Your task to perform on an android device: Open Android settings Image 0: 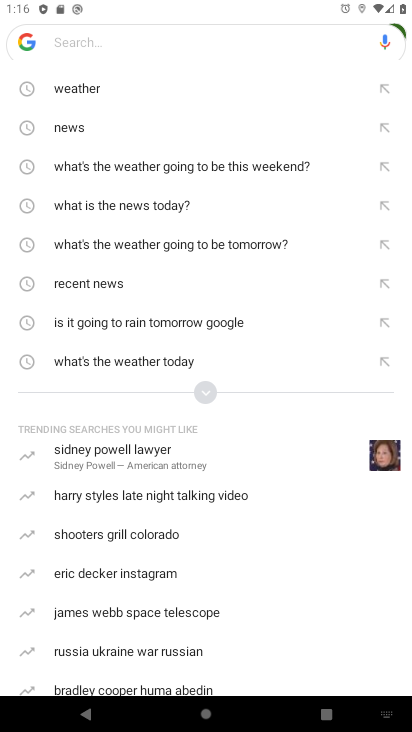
Step 0: press home button
Your task to perform on an android device: Open Android settings Image 1: 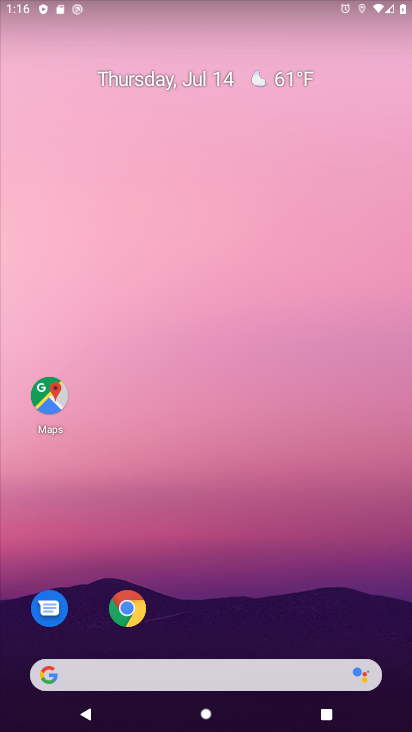
Step 1: click (190, 425)
Your task to perform on an android device: Open Android settings Image 2: 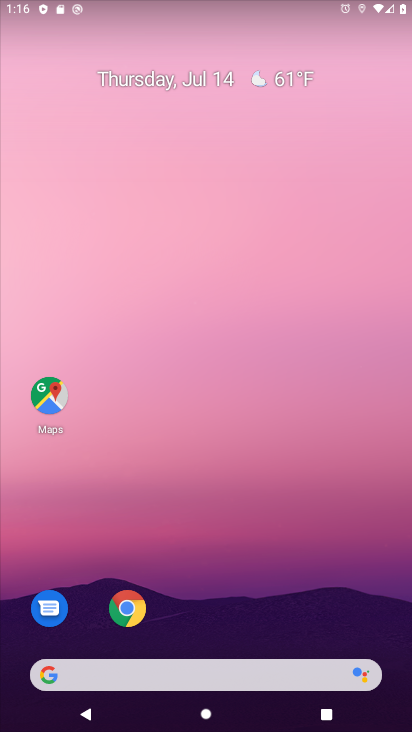
Step 2: drag from (209, 163) to (203, 121)
Your task to perform on an android device: Open Android settings Image 3: 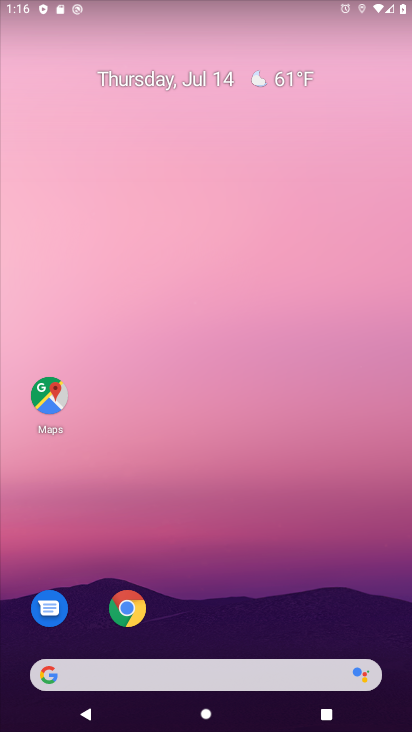
Step 3: drag from (247, 631) to (246, 74)
Your task to perform on an android device: Open Android settings Image 4: 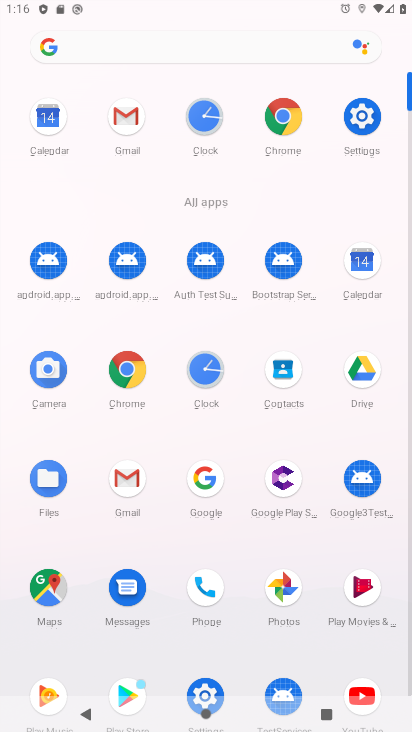
Step 4: click (357, 113)
Your task to perform on an android device: Open Android settings Image 5: 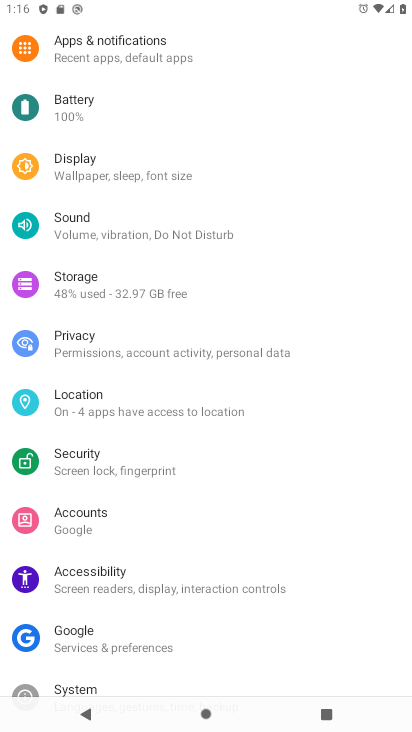
Step 5: task complete